Your task to perform on an android device: refresh tabs in the chrome app Image 0: 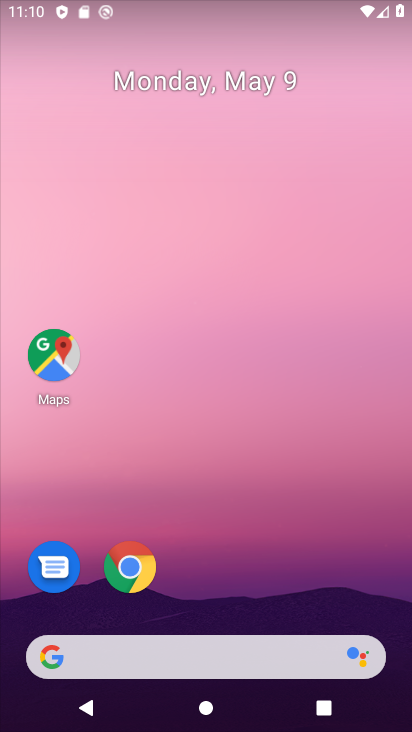
Step 0: click (145, 565)
Your task to perform on an android device: refresh tabs in the chrome app Image 1: 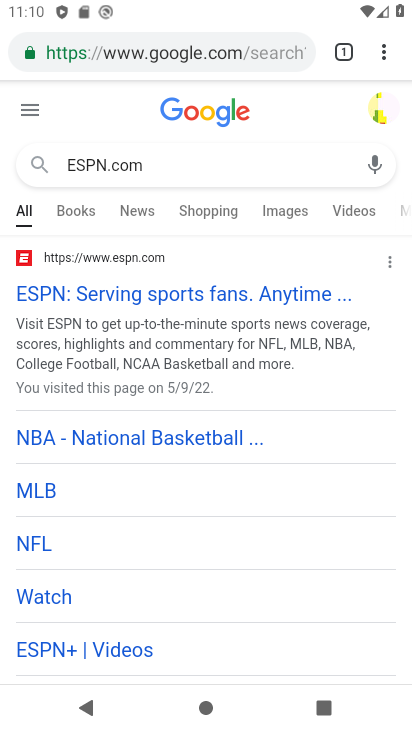
Step 1: click (381, 52)
Your task to perform on an android device: refresh tabs in the chrome app Image 2: 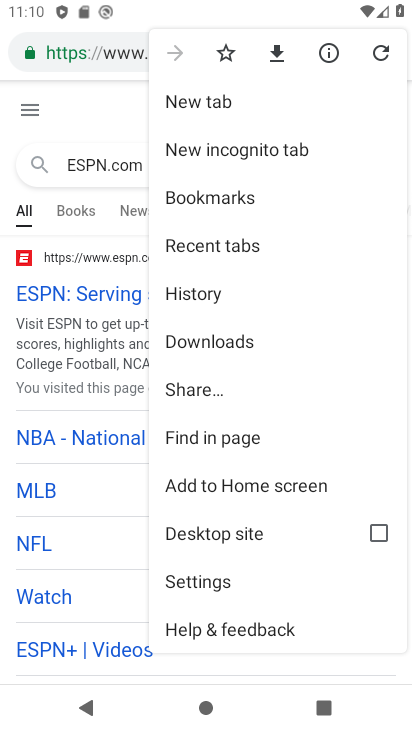
Step 2: click (385, 51)
Your task to perform on an android device: refresh tabs in the chrome app Image 3: 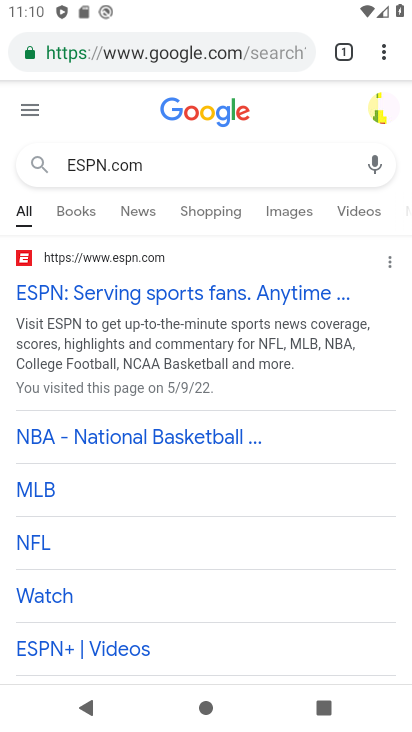
Step 3: task complete